Your task to perform on an android device: Open the Play Movies app and select the watchlist tab. Image 0: 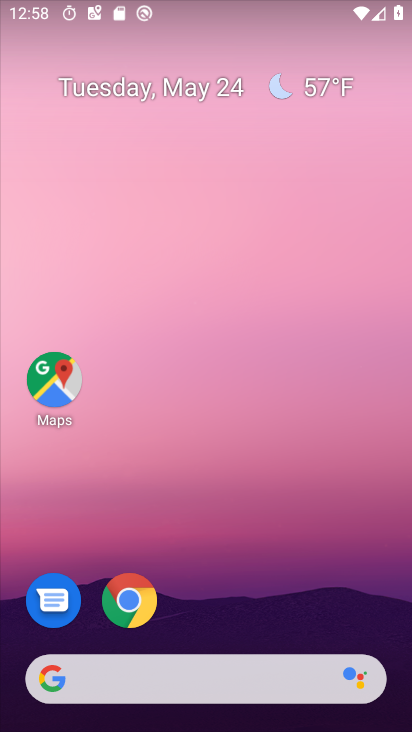
Step 0: drag from (337, 609) to (303, 171)
Your task to perform on an android device: Open the Play Movies app and select the watchlist tab. Image 1: 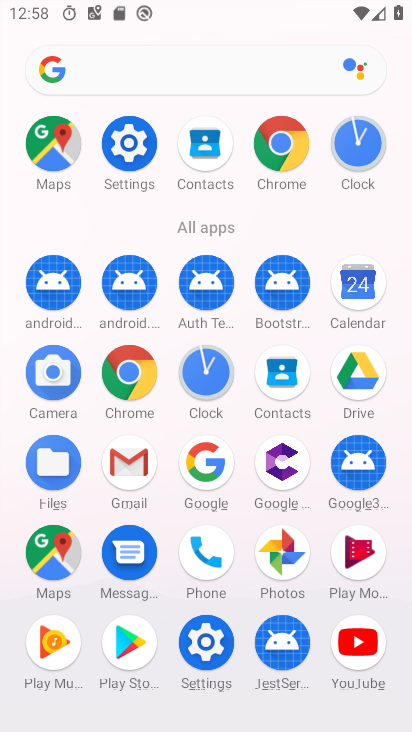
Step 1: click (361, 559)
Your task to perform on an android device: Open the Play Movies app and select the watchlist tab. Image 2: 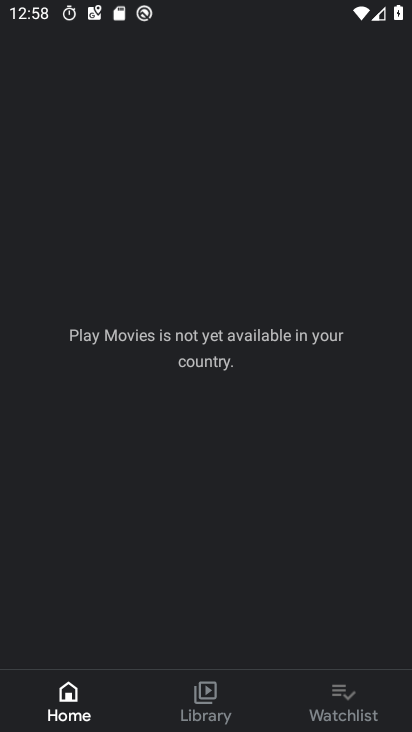
Step 2: click (338, 713)
Your task to perform on an android device: Open the Play Movies app and select the watchlist tab. Image 3: 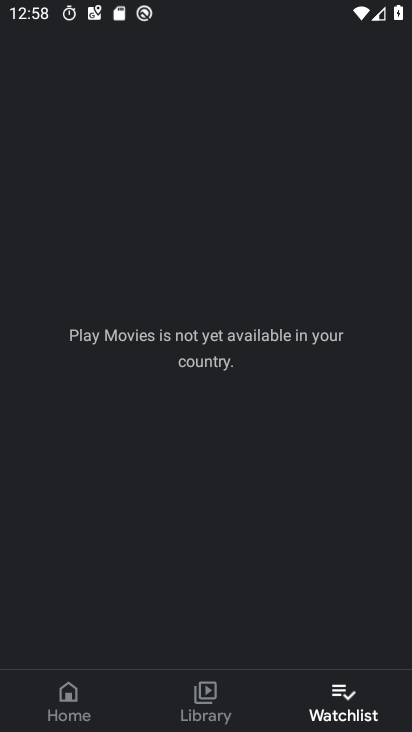
Step 3: task complete